Your task to perform on an android device: Open settings on Google Maps Image 0: 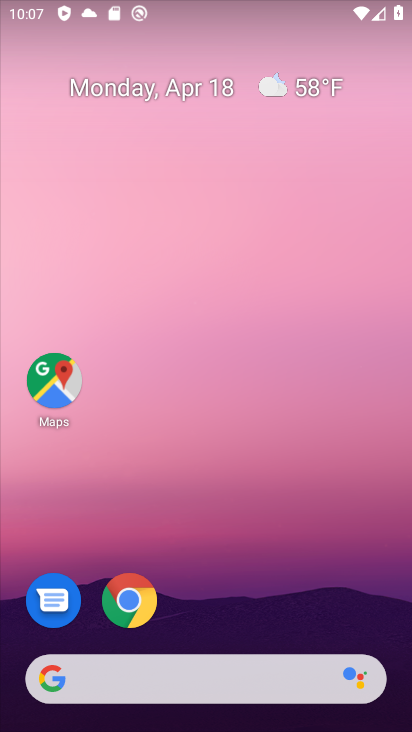
Step 0: click (57, 385)
Your task to perform on an android device: Open settings on Google Maps Image 1: 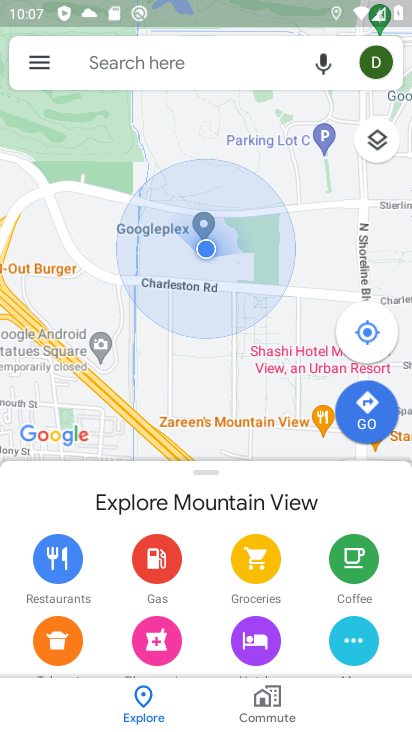
Step 1: click (38, 60)
Your task to perform on an android device: Open settings on Google Maps Image 2: 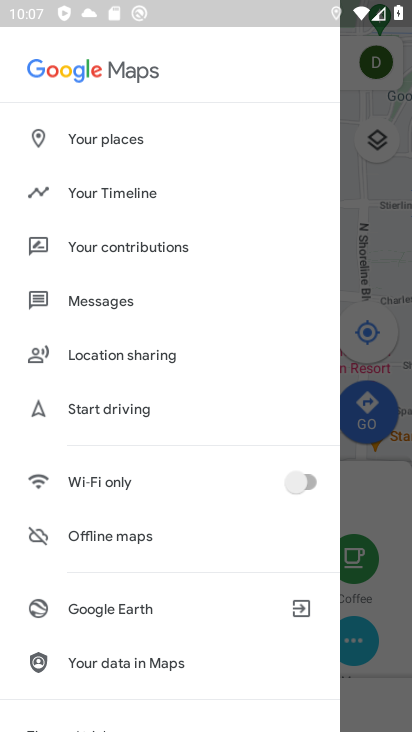
Step 2: drag from (170, 609) to (186, 149)
Your task to perform on an android device: Open settings on Google Maps Image 3: 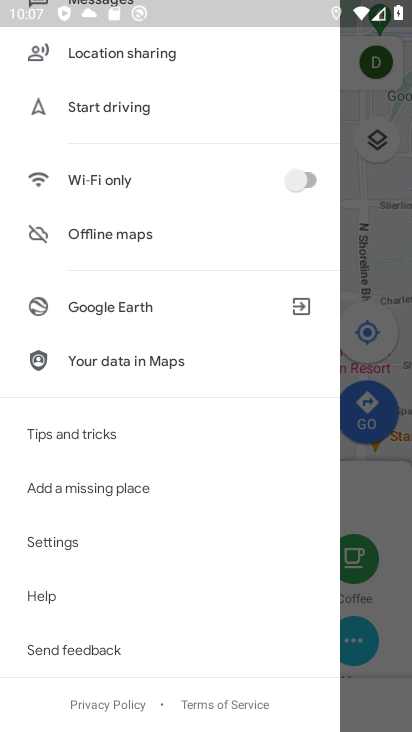
Step 3: click (54, 541)
Your task to perform on an android device: Open settings on Google Maps Image 4: 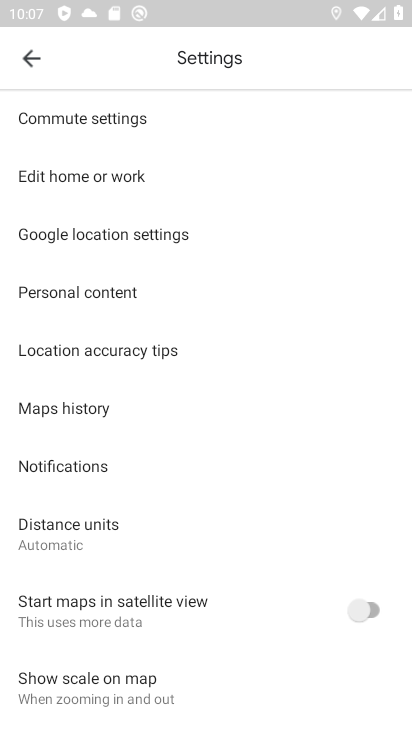
Step 4: task complete